Your task to perform on an android device: Open Youtube and go to "Your channel" Image 0: 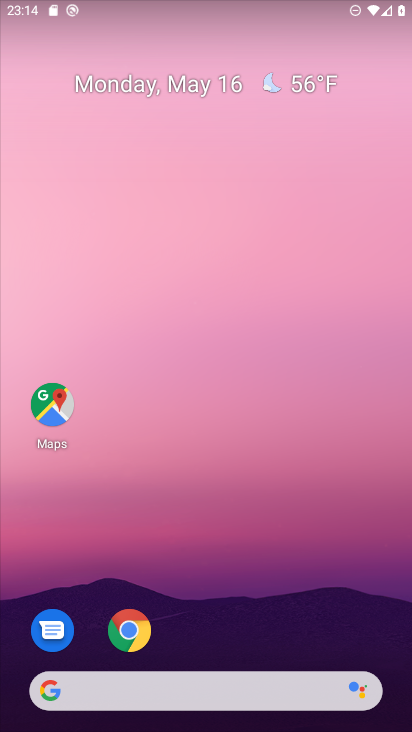
Step 0: drag from (244, 588) to (180, 209)
Your task to perform on an android device: Open Youtube and go to "Your channel" Image 1: 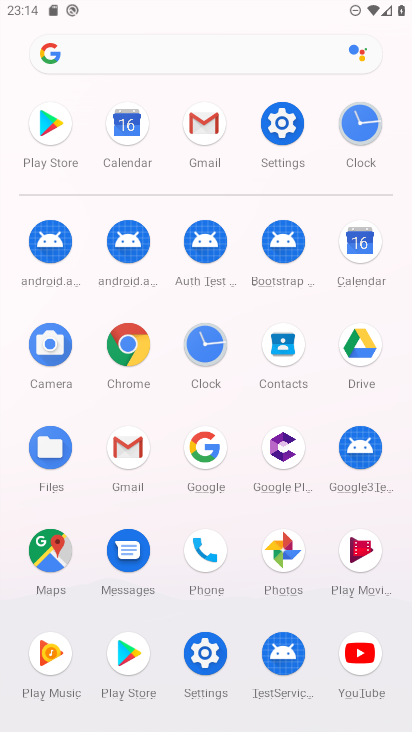
Step 1: click (361, 647)
Your task to perform on an android device: Open Youtube and go to "Your channel" Image 2: 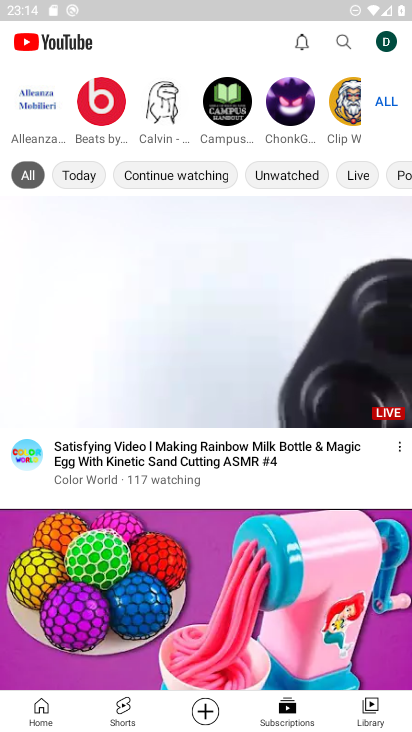
Step 2: click (385, 37)
Your task to perform on an android device: Open Youtube and go to "Your channel" Image 3: 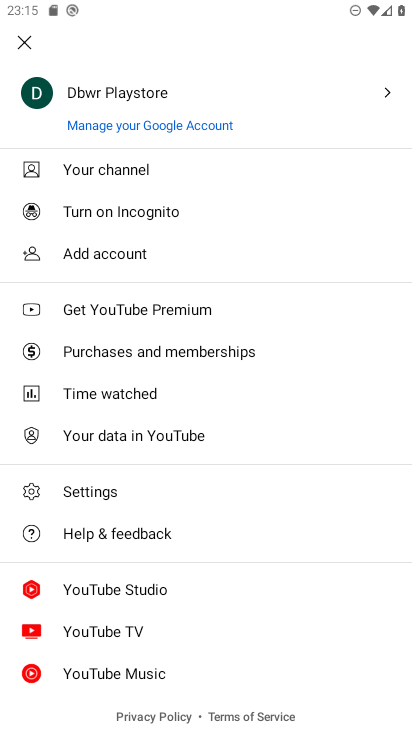
Step 3: click (198, 169)
Your task to perform on an android device: Open Youtube and go to "Your channel" Image 4: 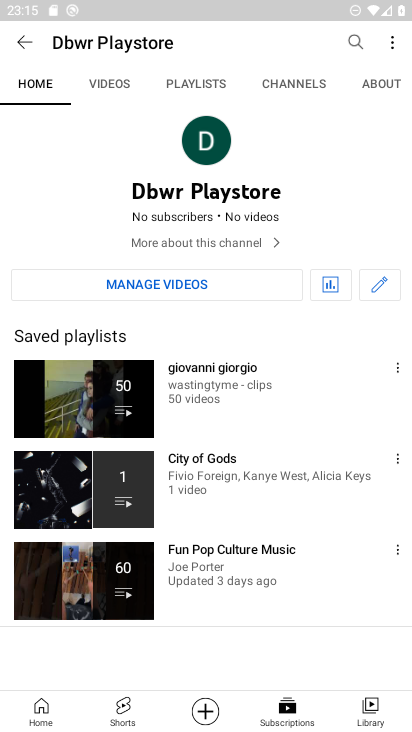
Step 4: task complete